Your task to perform on an android device: Set the phone to "Do not disturb". Image 0: 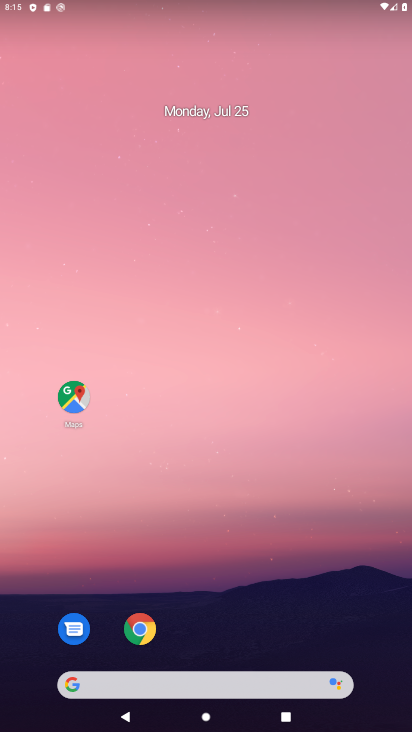
Step 0: drag from (183, 2) to (145, 409)
Your task to perform on an android device: Set the phone to "Do not disturb". Image 1: 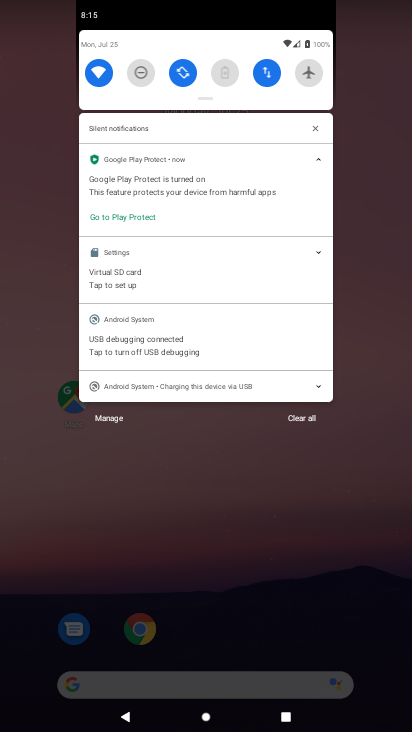
Step 1: click (130, 71)
Your task to perform on an android device: Set the phone to "Do not disturb". Image 2: 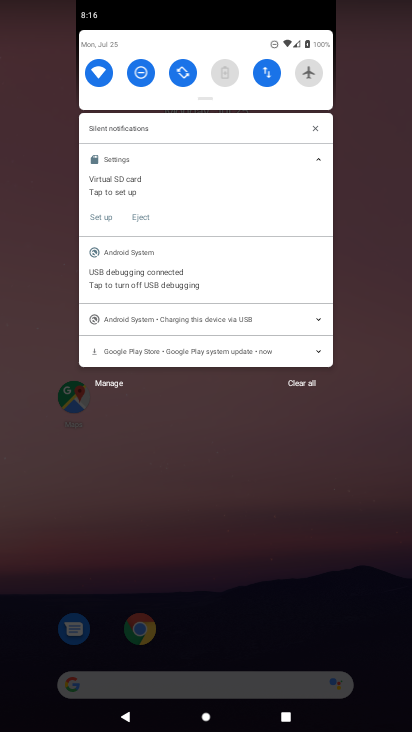
Step 2: task complete